Your task to perform on an android device: Open Chrome and go to settings Image 0: 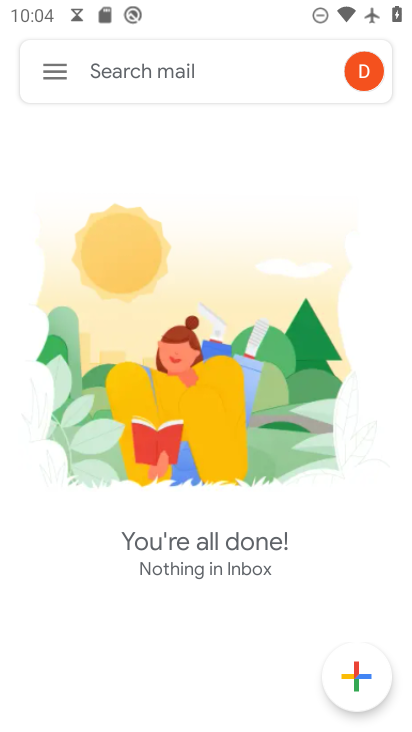
Step 0: press home button
Your task to perform on an android device: Open Chrome and go to settings Image 1: 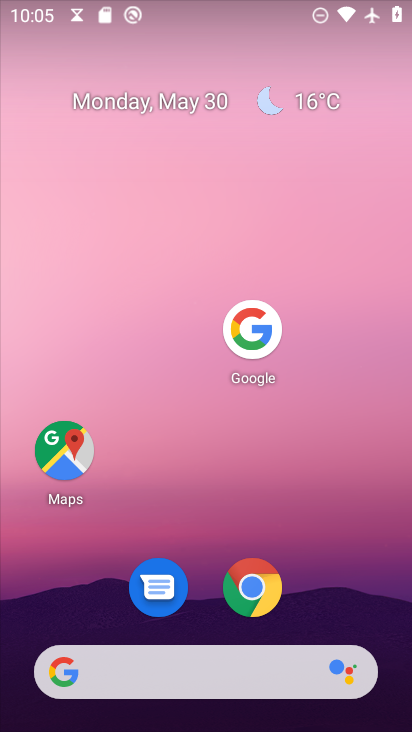
Step 1: click (262, 588)
Your task to perform on an android device: Open Chrome and go to settings Image 2: 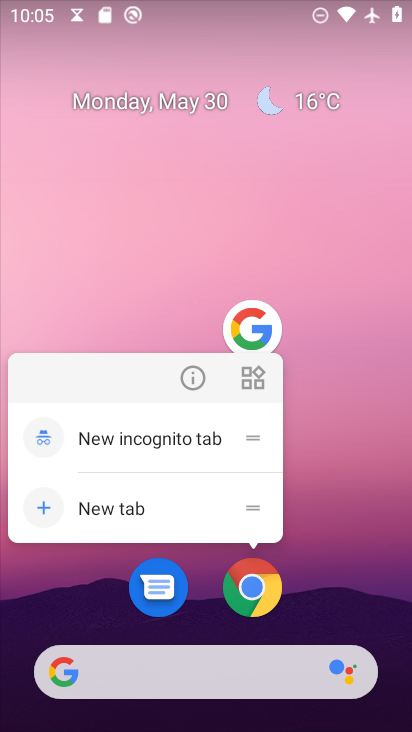
Step 2: click (250, 596)
Your task to perform on an android device: Open Chrome and go to settings Image 3: 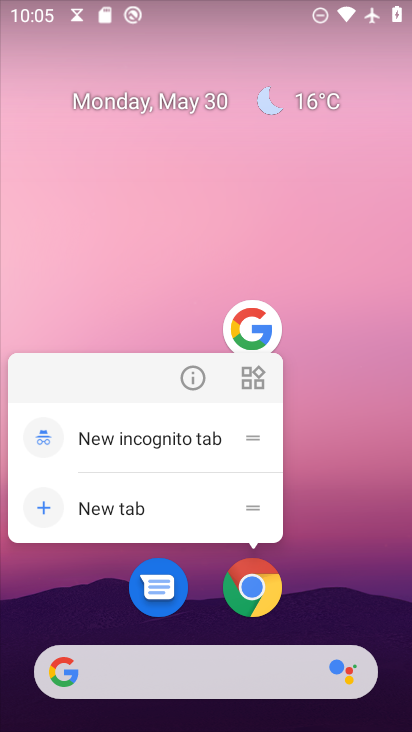
Step 3: click (243, 600)
Your task to perform on an android device: Open Chrome and go to settings Image 4: 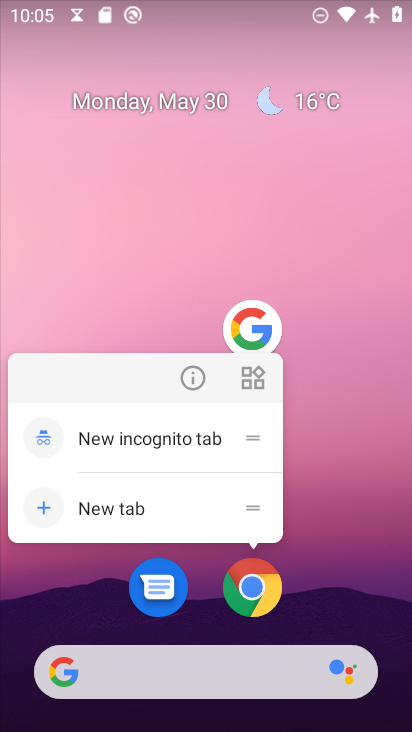
Step 4: click (268, 587)
Your task to perform on an android device: Open Chrome and go to settings Image 5: 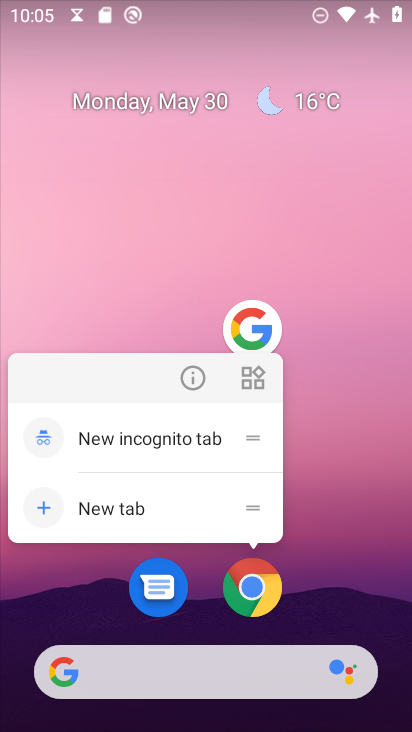
Step 5: click (268, 588)
Your task to perform on an android device: Open Chrome and go to settings Image 6: 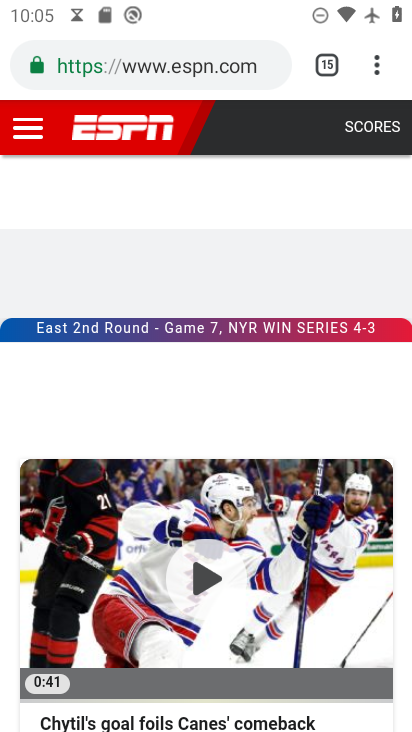
Step 6: task complete